Your task to perform on an android device: Open calendar and show me the fourth week of next month Image 0: 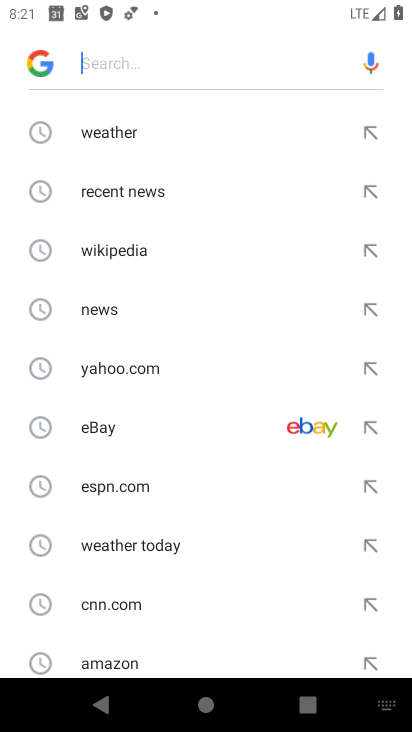
Step 0: press home button
Your task to perform on an android device: Open calendar and show me the fourth week of next month Image 1: 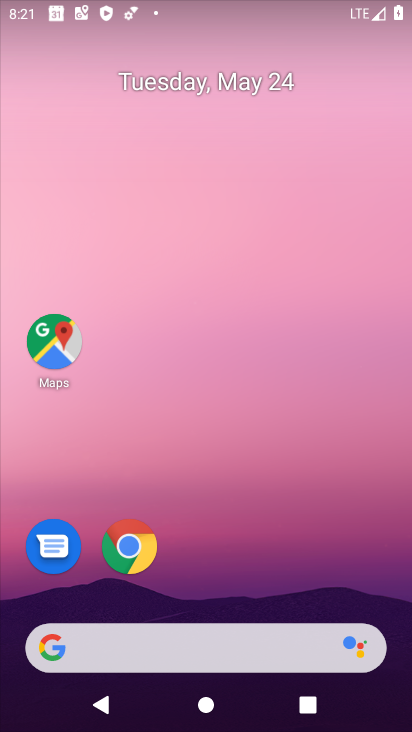
Step 1: drag from (248, 520) to (290, 16)
Your task to perform on an android device: Open calendar and show me the fourth week of next month Image 2: 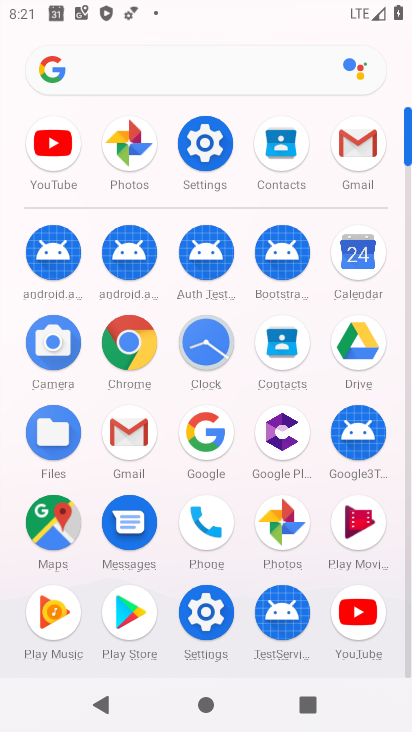
Step 2: click (350, 257)
Your task to perform on an android device: Open calendar and show me the fourth week of next month Image 3: 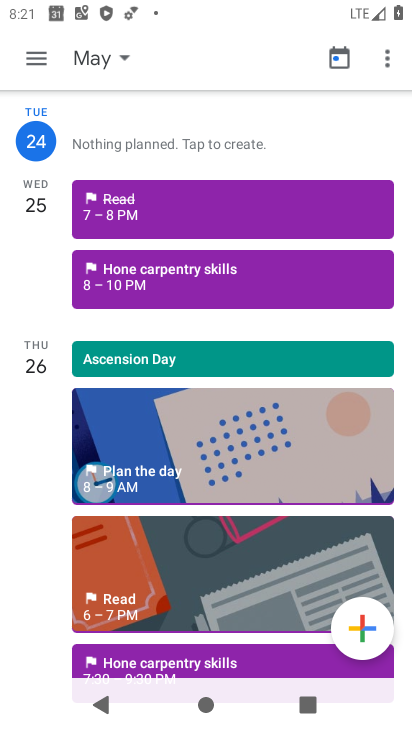
Step 3: click (39, 58)
Your task to perform on an android device: Open calendar and show me the fourth week of next month Image 4: 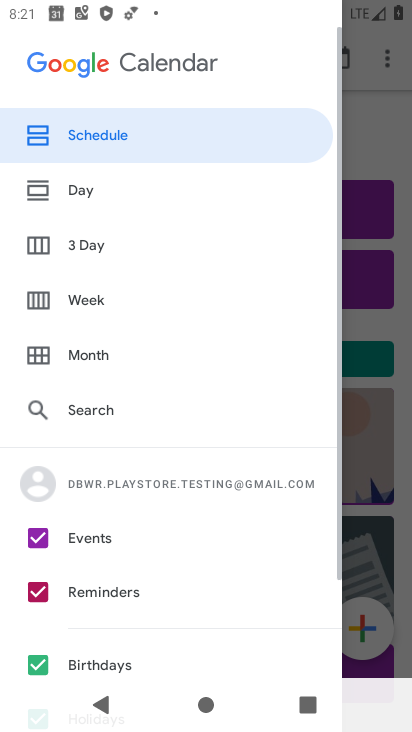
Step 4: click (34, 350)
Your task to perform on an android device: Open calendar and show me the fourth week of next month Image 5: 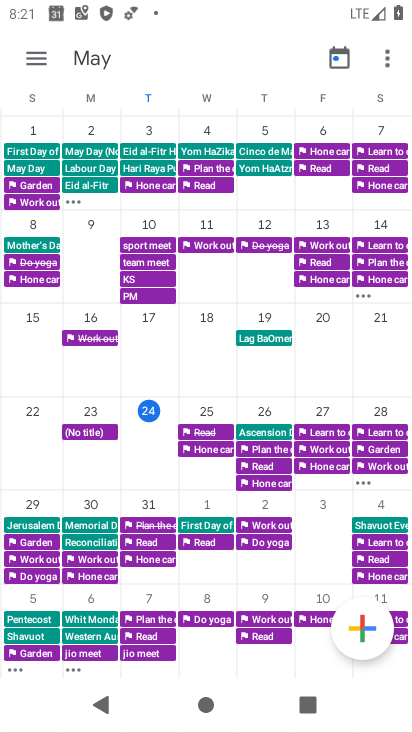
Step 5: drag from (367, 357) to (1, 370)
Your task to perform on an android device: Open calendar and show me the fourth week of next month Image 6: 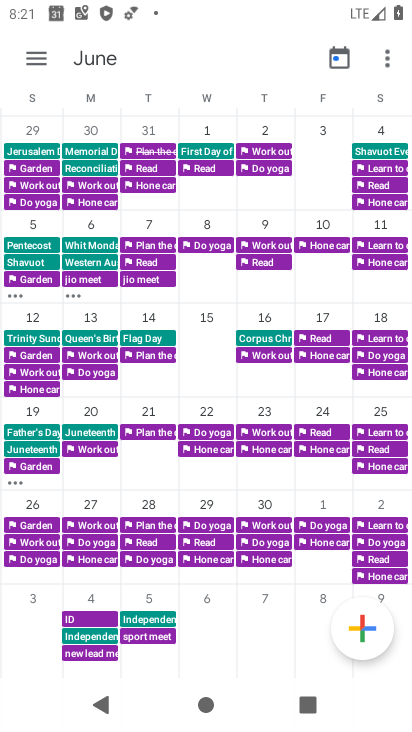
Step 6: click (34, 496)
Your task to perform on an android device: Open calendar and show me the fourth week of next month Image 7: 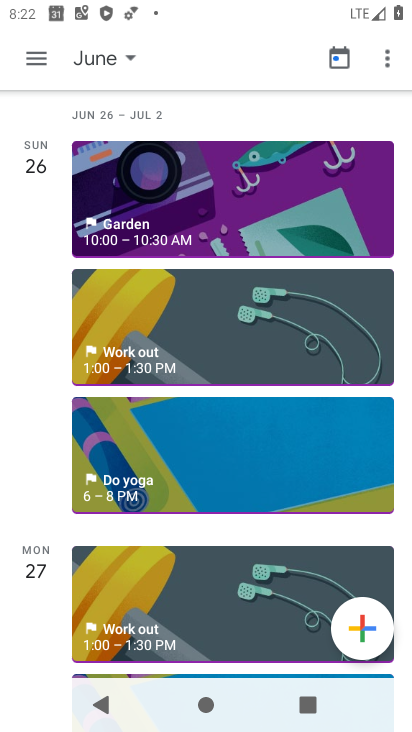
Step 7: click (38, 55)
Your task to perform on an android device: Open calendar and show me the fourth week of next month Image 8: 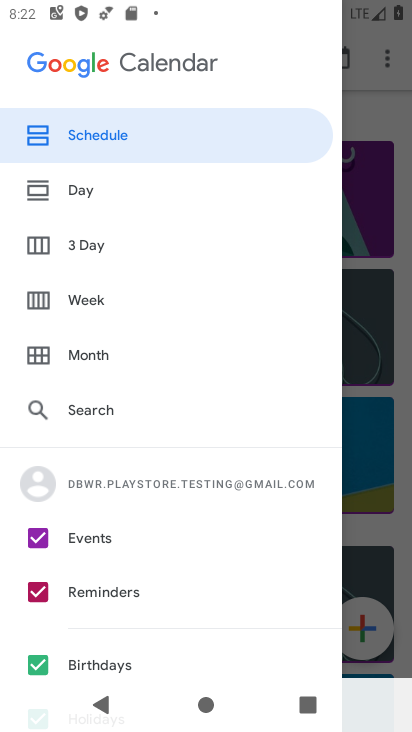
Step 8: click (36, 298)
Your task to perform on an android device: Open calendar and show me the fourth week of next month Image 9: 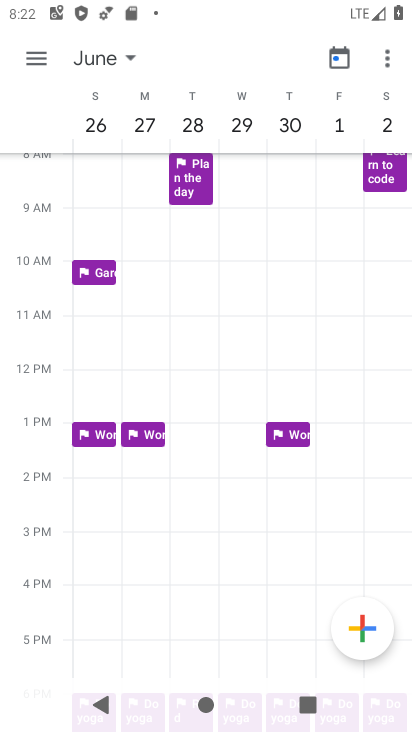
Step 9: task complete